Your task to perform on an android device: Go to CNN.com Image 0: 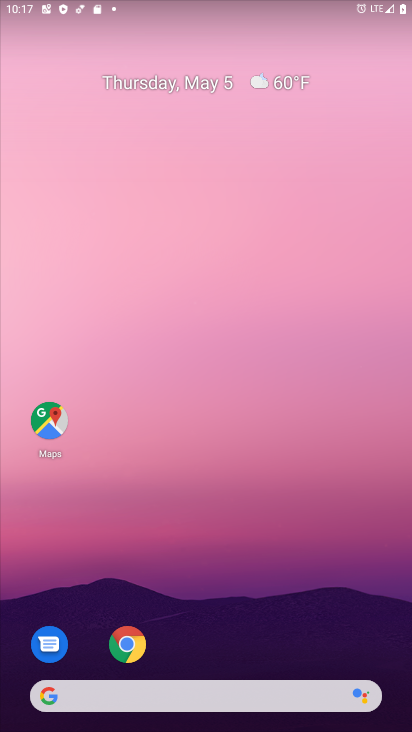
Step 0: click (116, 655)
Your task to perform on an android device: Go to CNN.com Image 1: 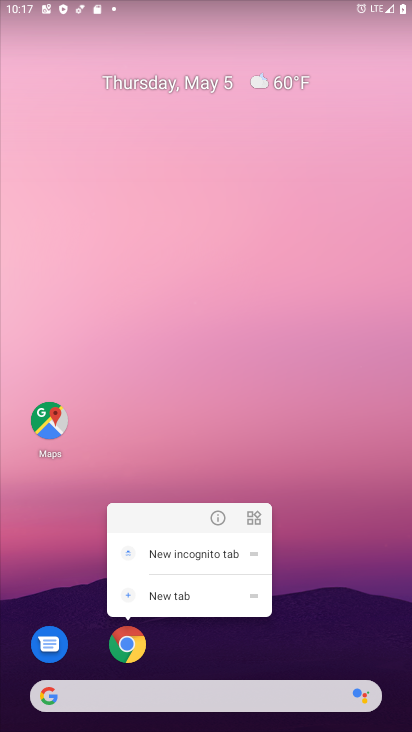
Step 1: click (130, 646)
Your task to perform on an android device: Go to CNN.com Image 2: 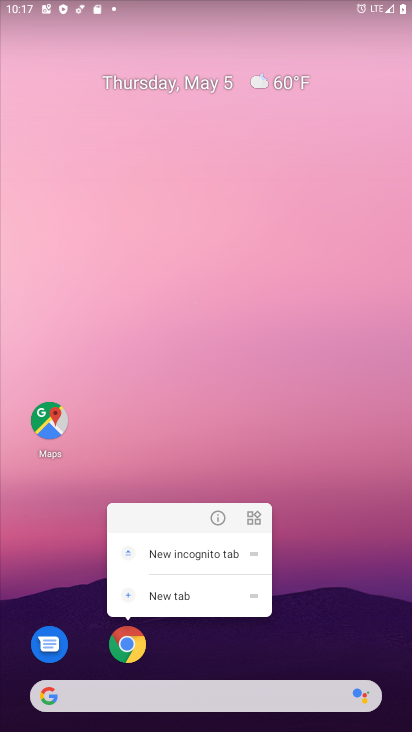
Step 2: click (130, 646)
Your task to perform on an android device: Go to CNN.com Image 3: 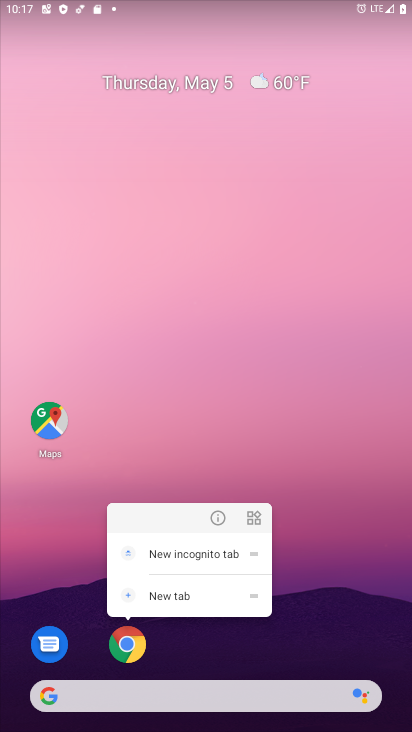
Step 3: click (132, 643)
Your task to perform on an android device: Go to CNN.com Image 4: 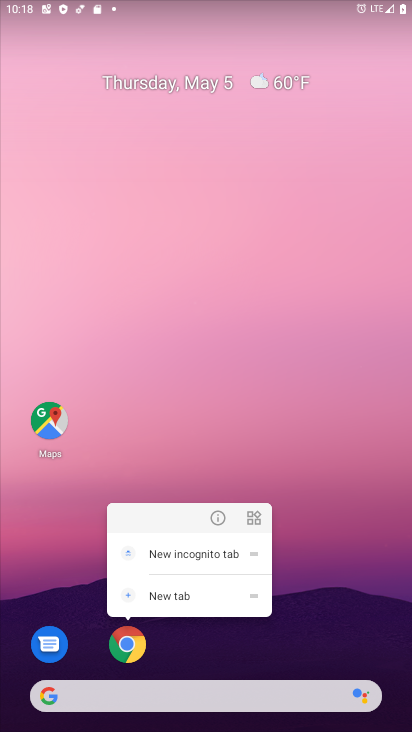
Step 4: click (130, 648)
Your task to perform on an android device: Go to CNN.com Image 5: 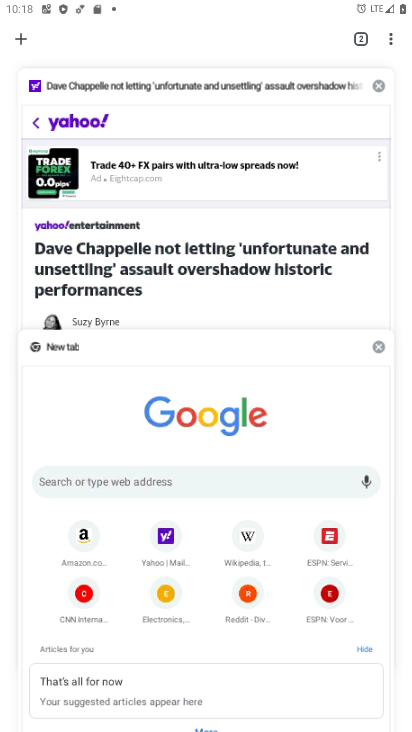
Step 5: click (20, 41)
Your task to perform on an android device: Go to CNN.com Image 6: 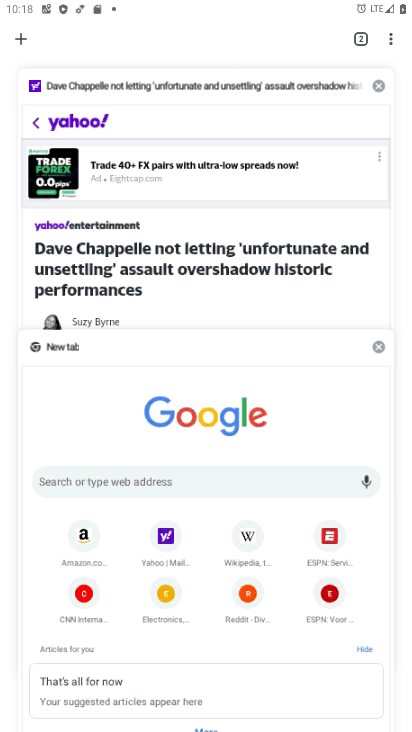
Step 6: click (23, 35)
Your task to perform on an android device: Go to CNN.com Image 7: 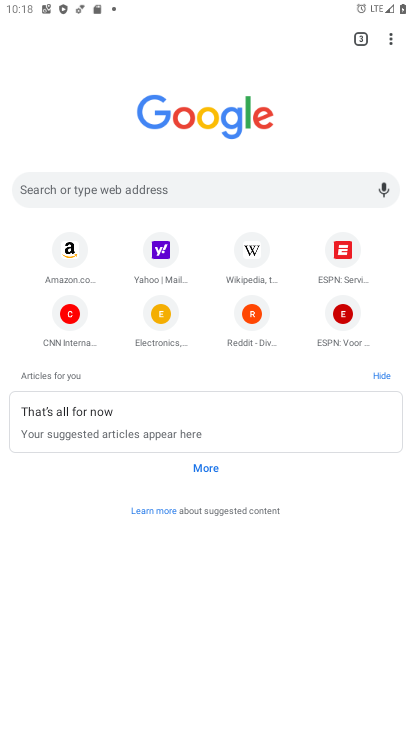
Step 7: click (142, 187)
Your task to perform on an android device: Go to CNN.com Image 8: 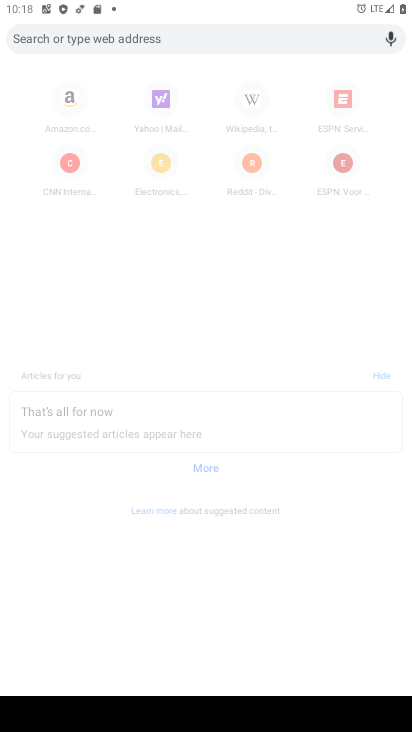
Step 8: type "cnn.com"
Your task to perform on an android device: Go to CNN.com Image 9: 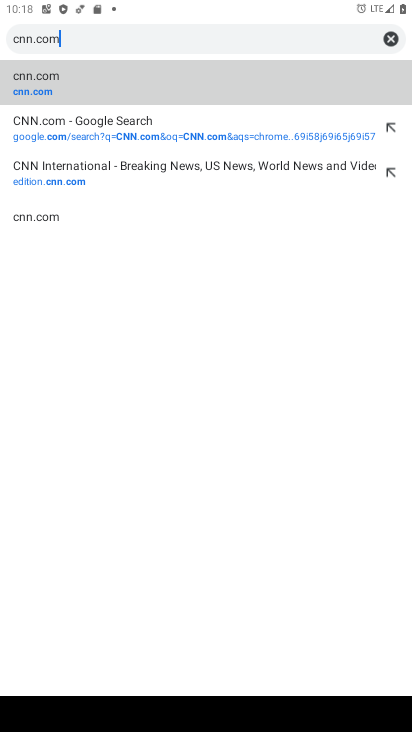
Step 9: click (20, 83)
Your task to perform on an android device: Go to CNN.com Image 10: 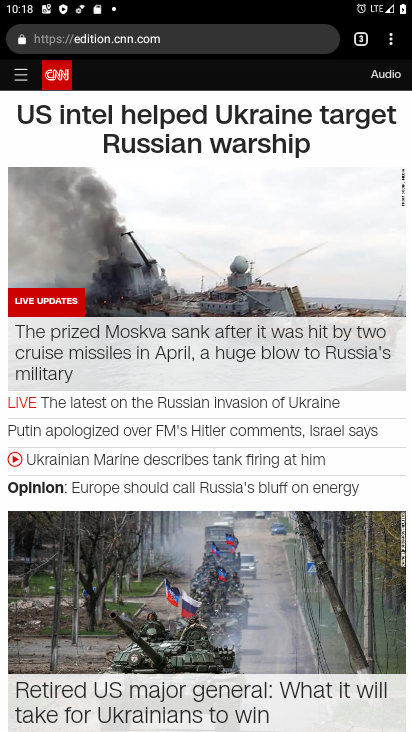
Step 10: task complete